Your task to perform on an android device: Go to settings Image 0: 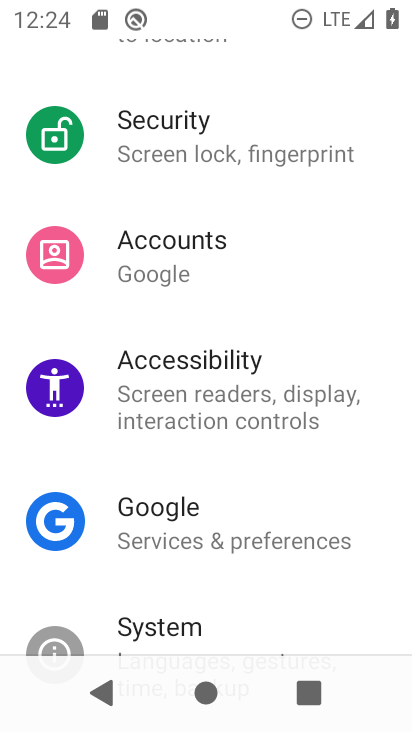
Step 0: drag from (309, 141) to (351, 607)
Your task to perform on an android device: Go to settings Image 1: 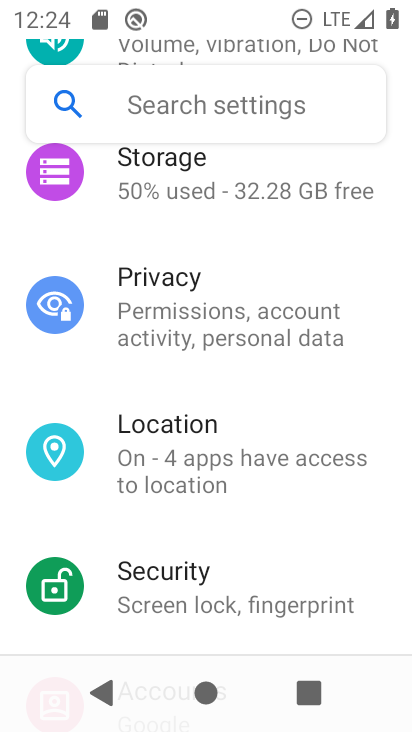
Step 1: task complete